Your task to perform on an android device: uninstall "Pandora - Music & Podcasts" Image 0: 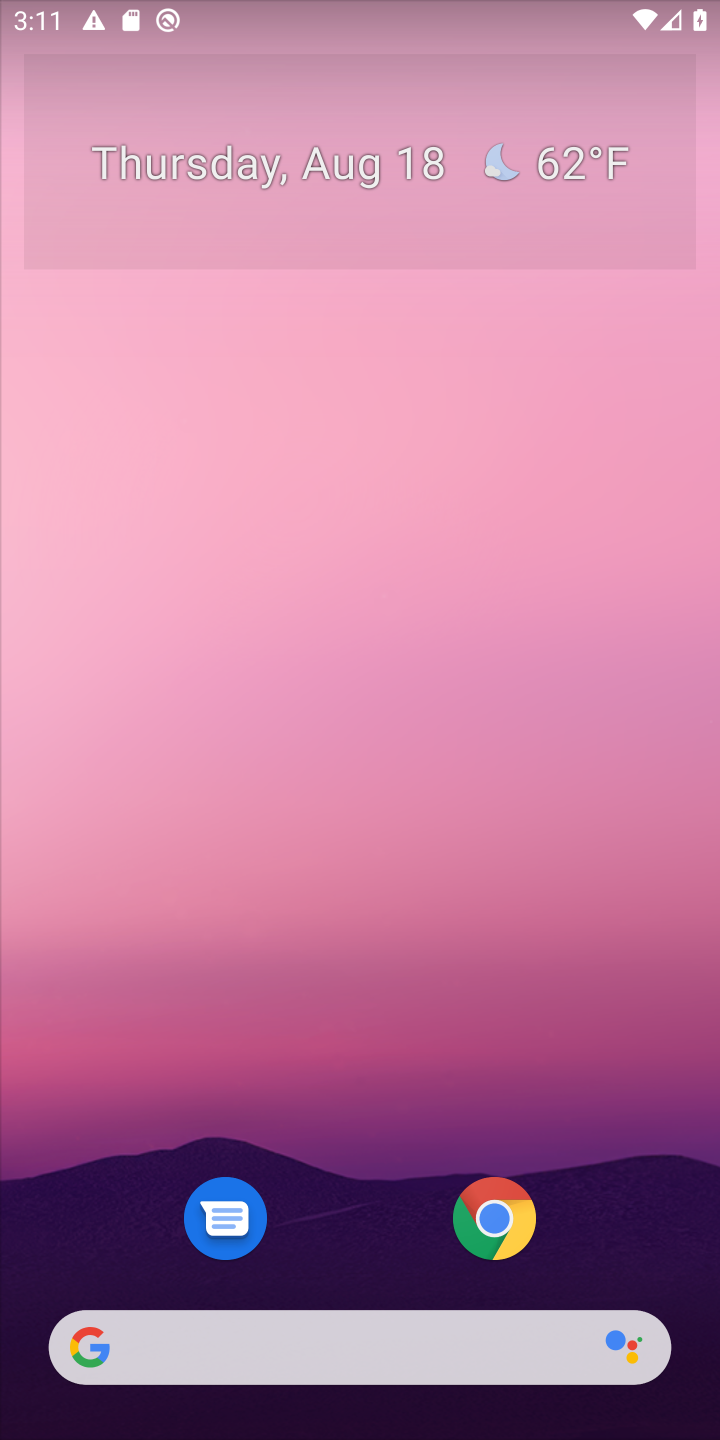
Step 0: drag from (329, 1159) to (309, 117)
Your task to perform on an android device: uninstall "Pandora - Music & Podcasts" Image 1: 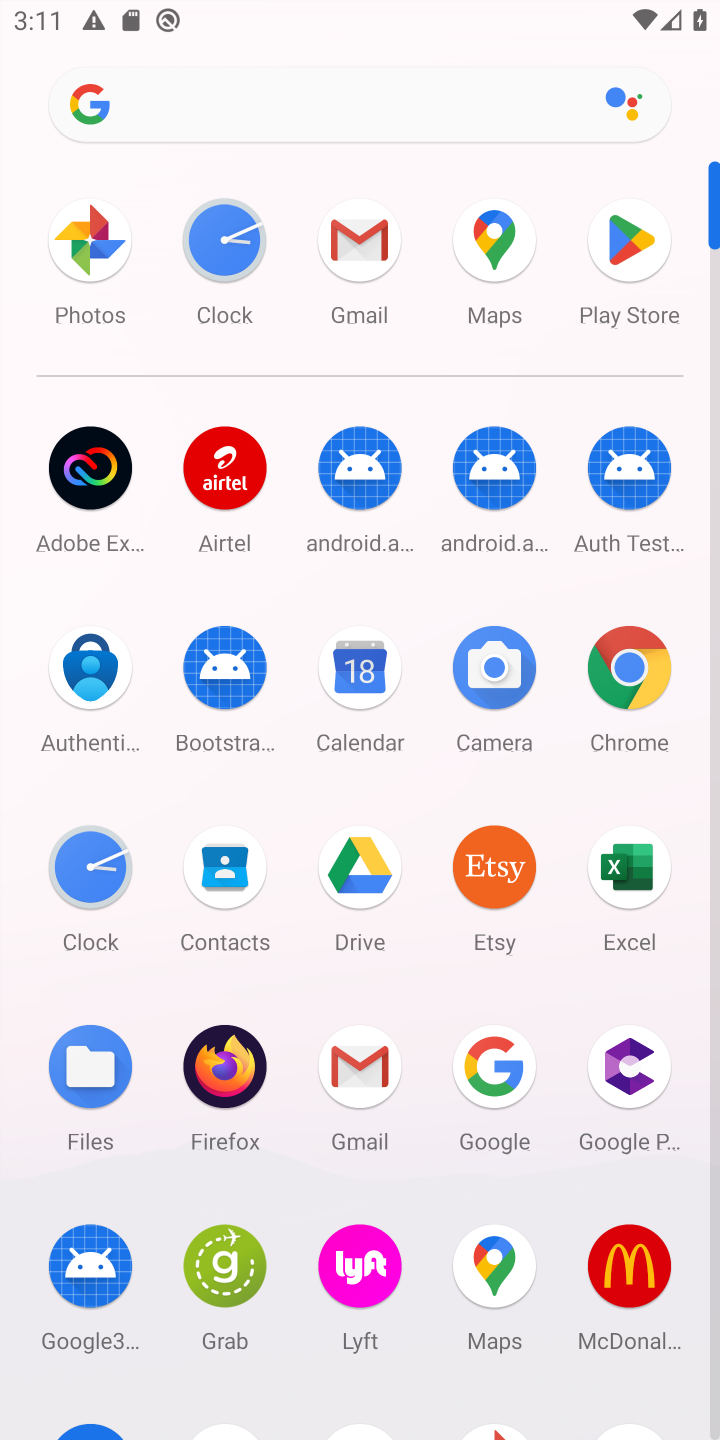
Step 1: click (622, 273)
Your task to perform on an android device: uninstall "Pandora - Music & Podcasts" Image 2: 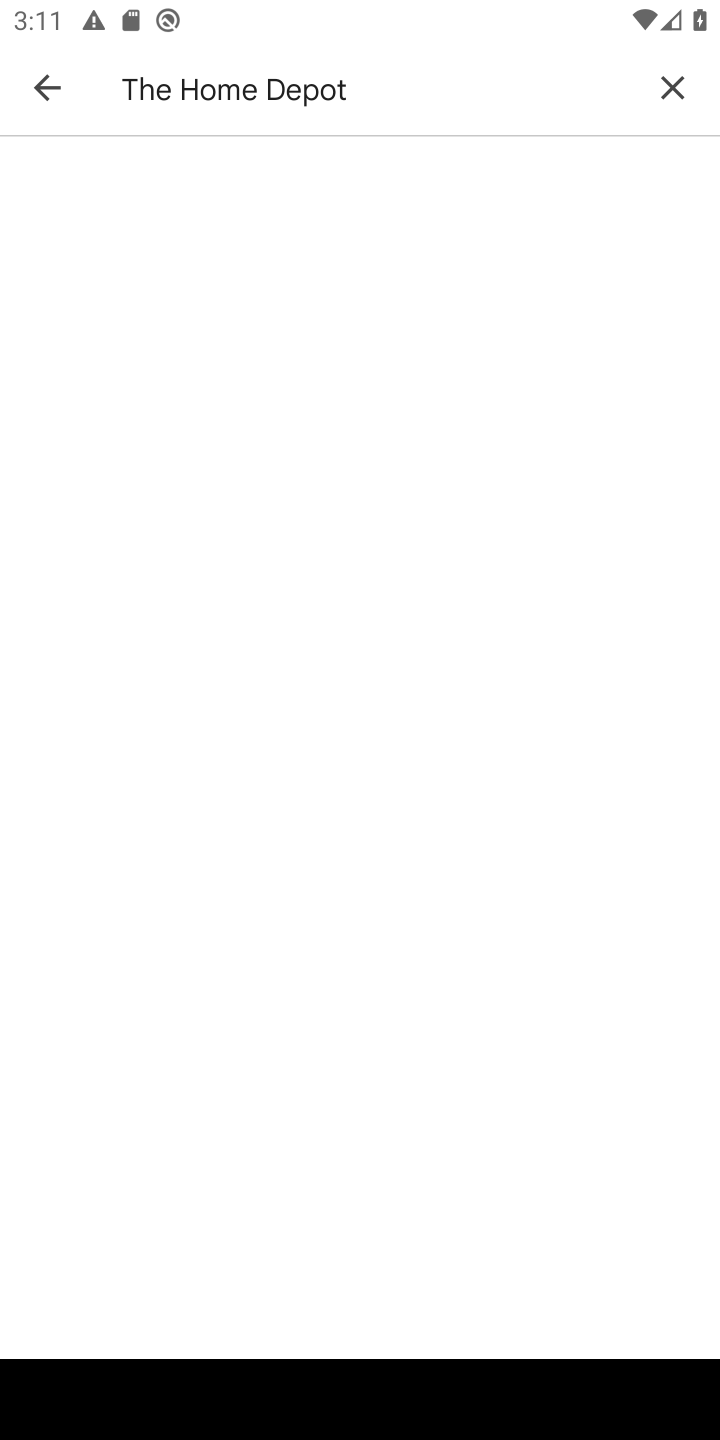
Step 2: click (678, 93)
Your task to perform on an android device: uninstall "Pandora - Music & Podcasts" Image 3: 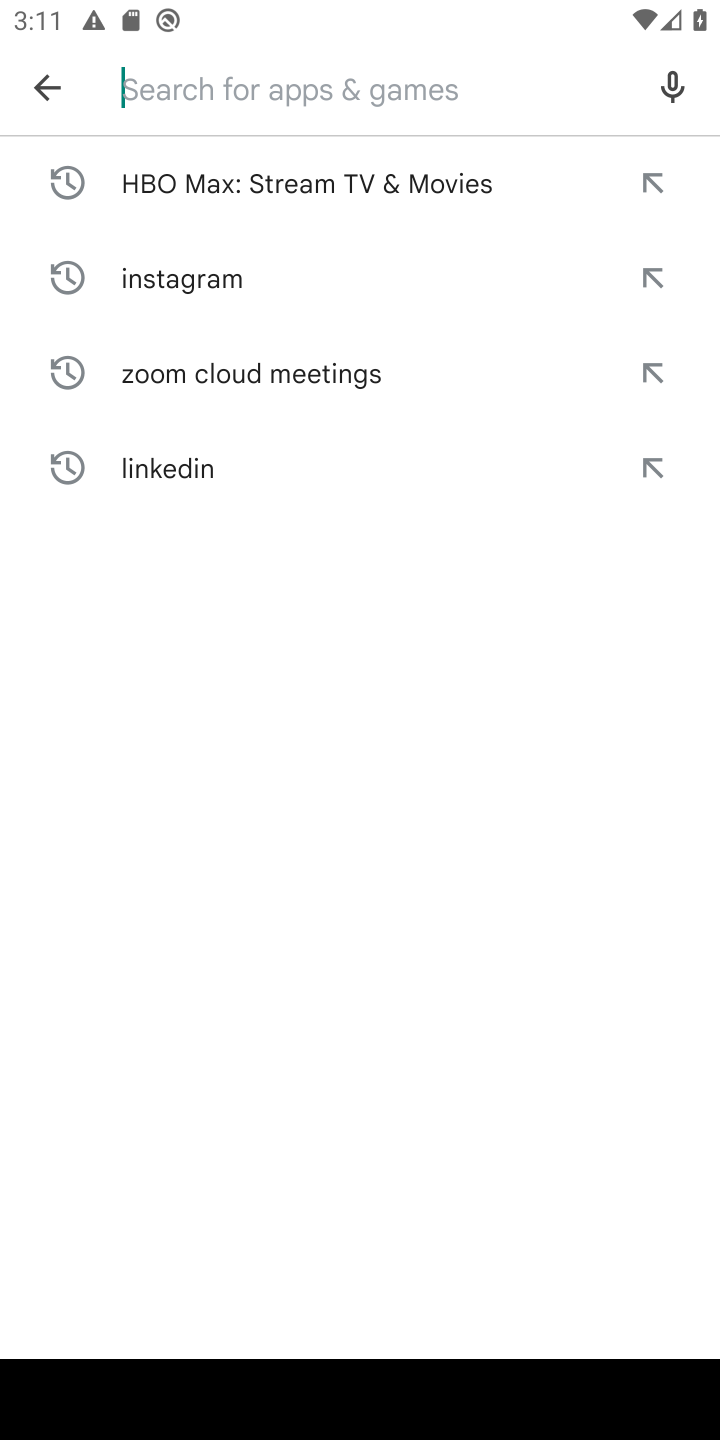
Step 3: click (264, 104)
Your task to perform on an android device: uninstall "Pandora - Music & Podcasts" Image 4: 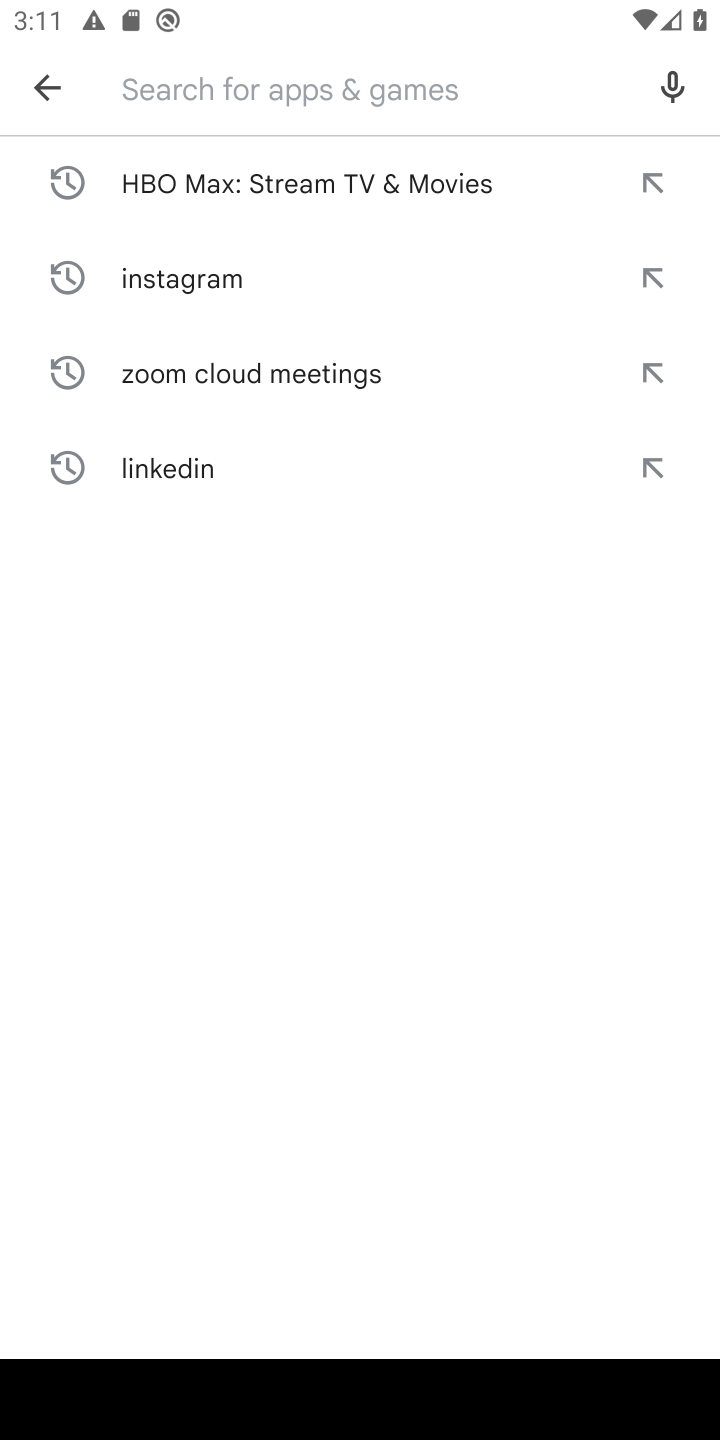
Step 4: type "Pandora - Music & Podcasts"
Your task to perform on an android device: uninstall "Pandora - Music & Podcasts" Image 5: 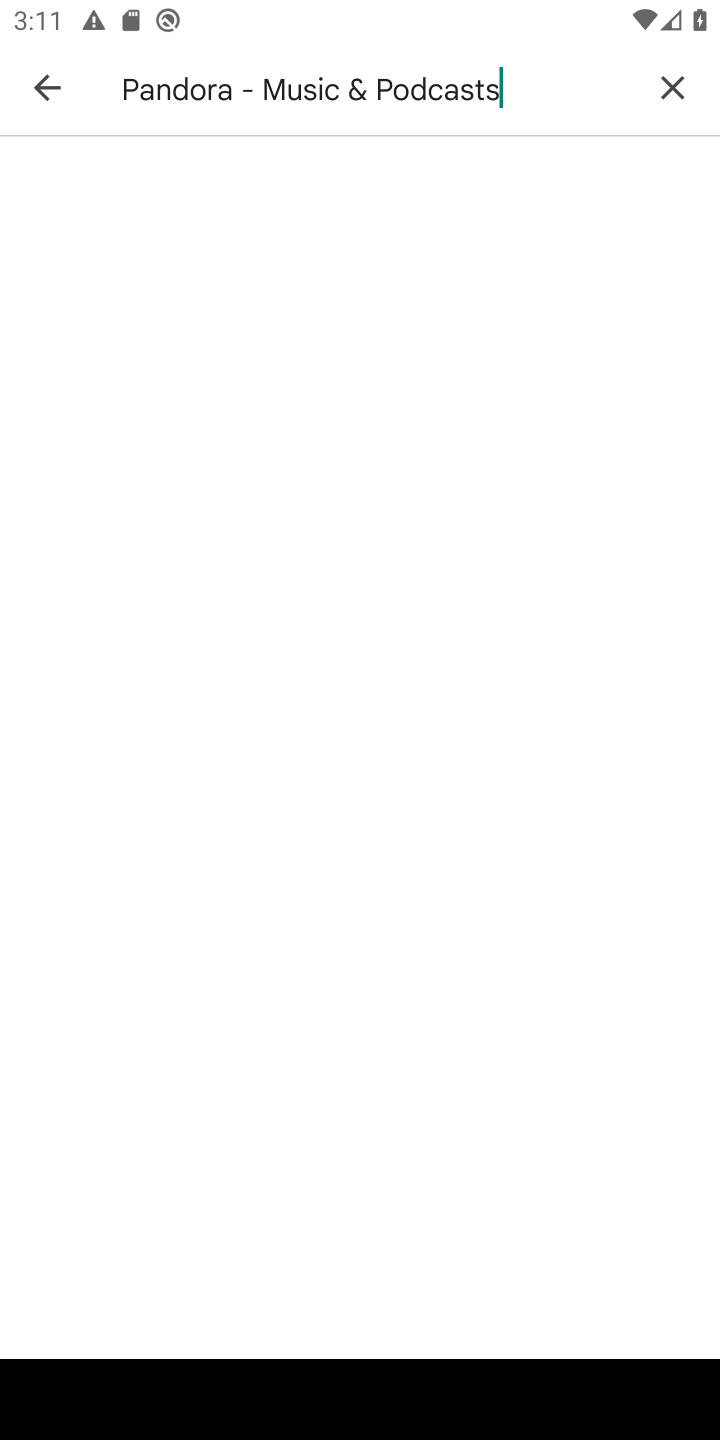
Step 5: type ""
Your task to perform on an android device: uninstall "Pandora - Music & Podcasts" Image 6: 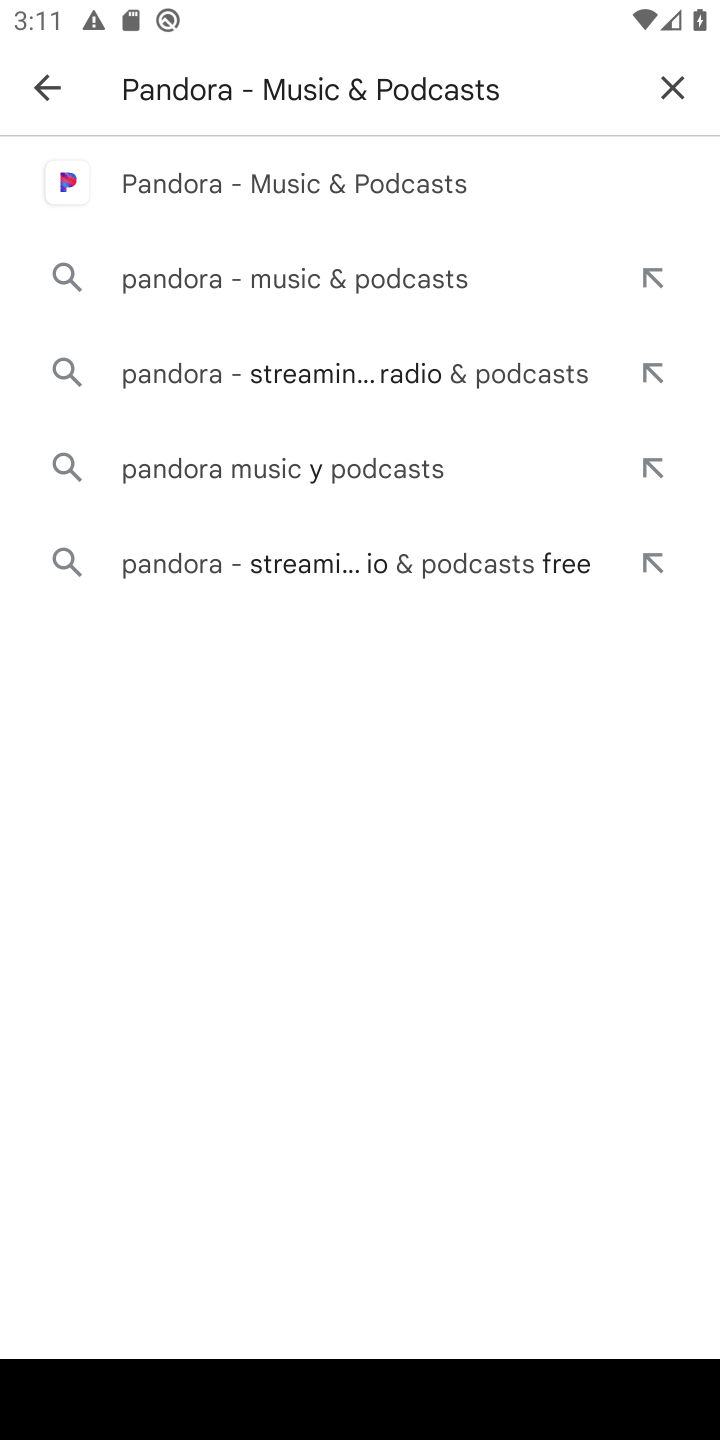
Step 6: click (329, 192)
Your task to perform on an android device: uninstall "Pandora - Music & Podcasts" Image 7: 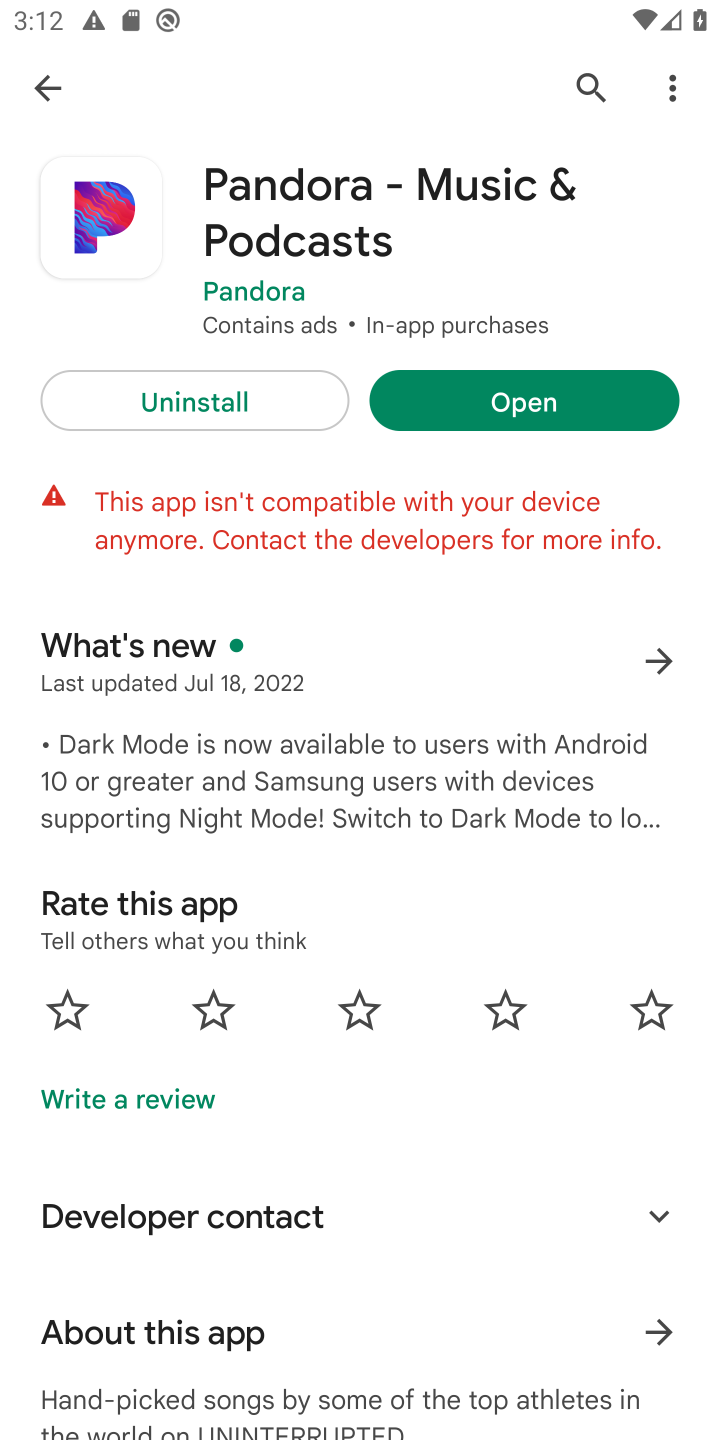
Step 7: click (270, 415)
Your task to perform on an android device: uninstall "Pandora - Music & Podcasts" Image 8: 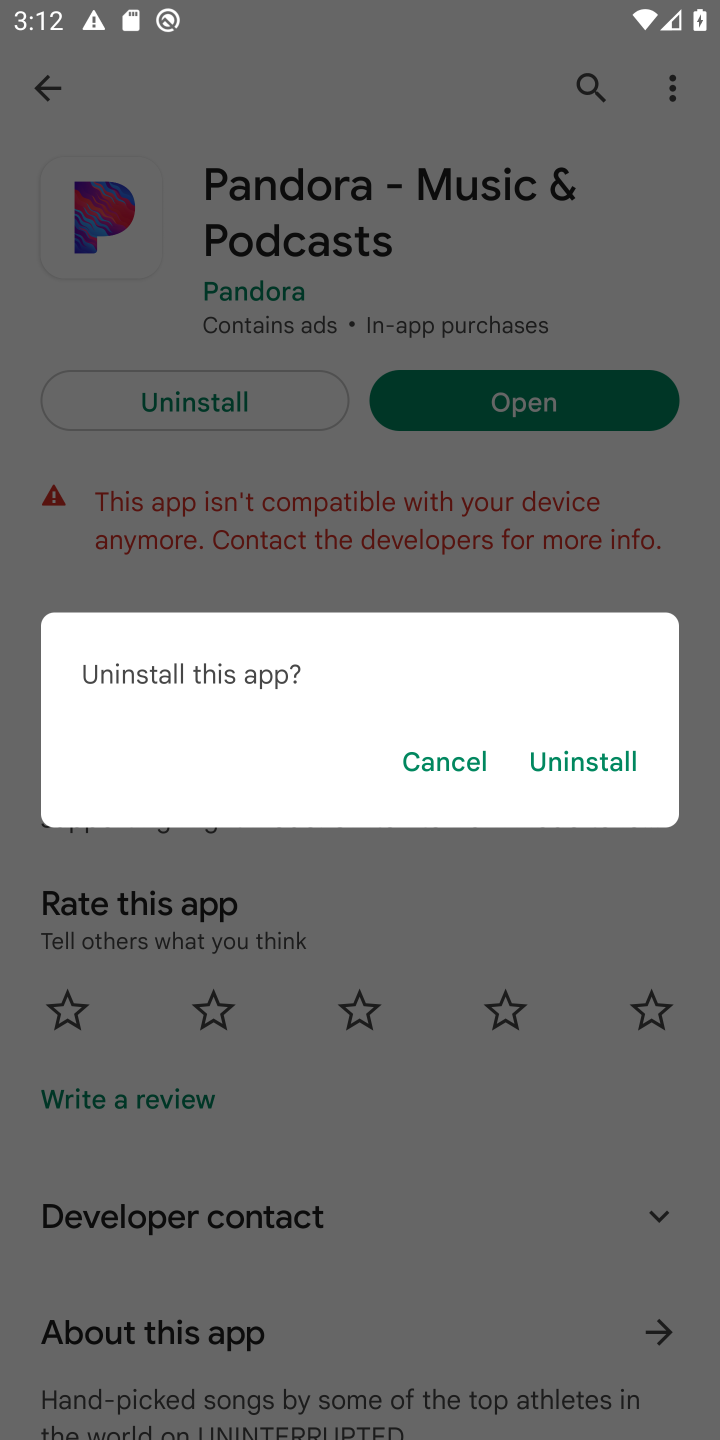
Step 8: click (548, 763)
Your task to perform on an android device: uninstall "Pandora - Music & Podcasts" Image 9: 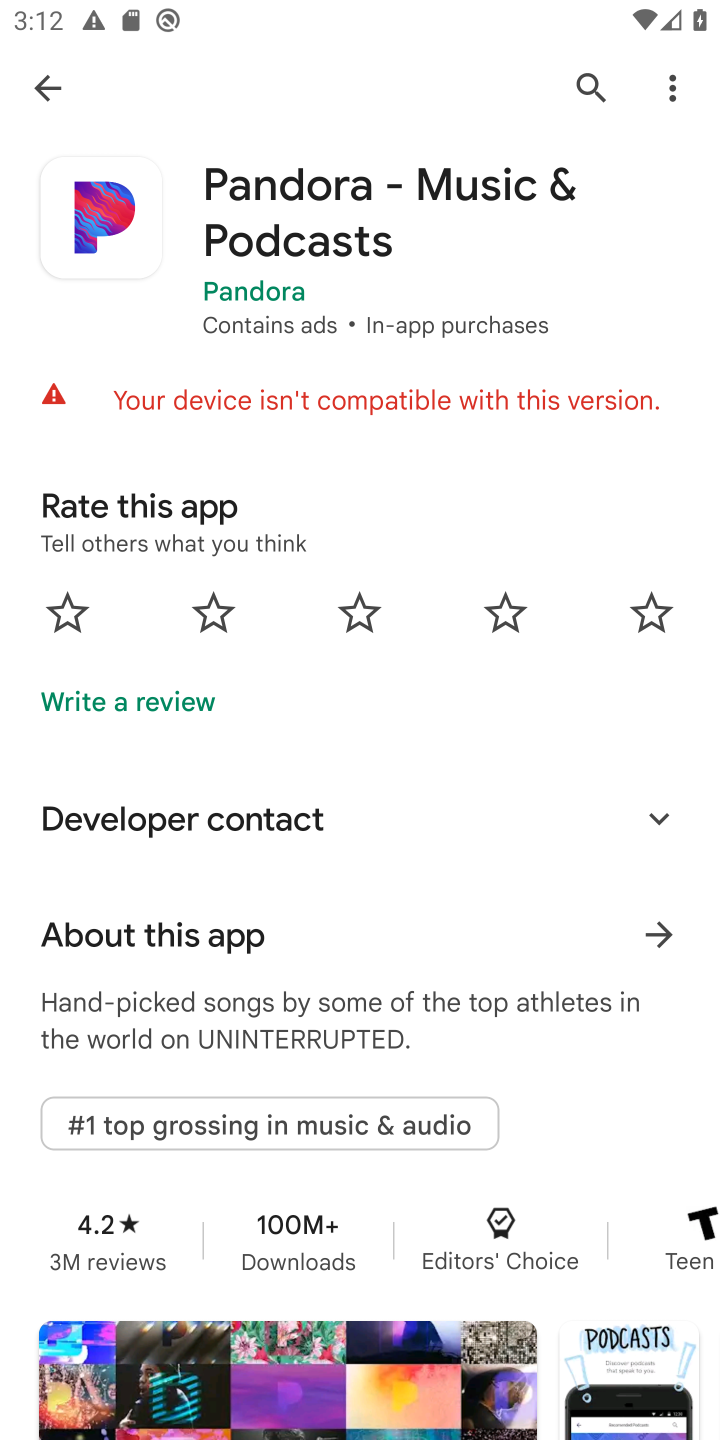
Step 9: task complete